Your task to perform on an android device: Open display settings Image 0: 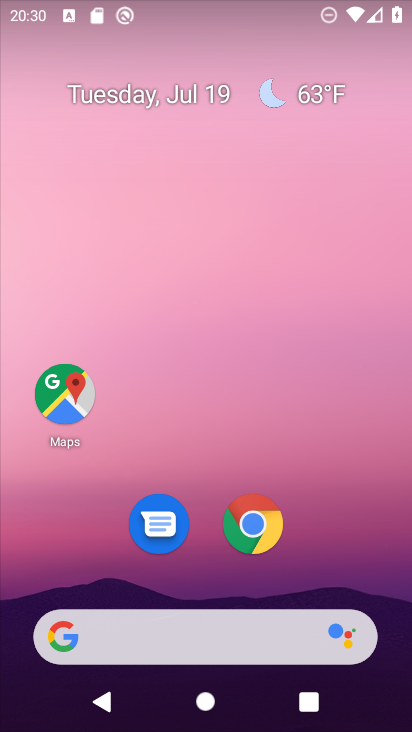
Step 0: drag from (320, 529) to (299, 30)
Your task to perform on an android device: Open display settings Image 1: 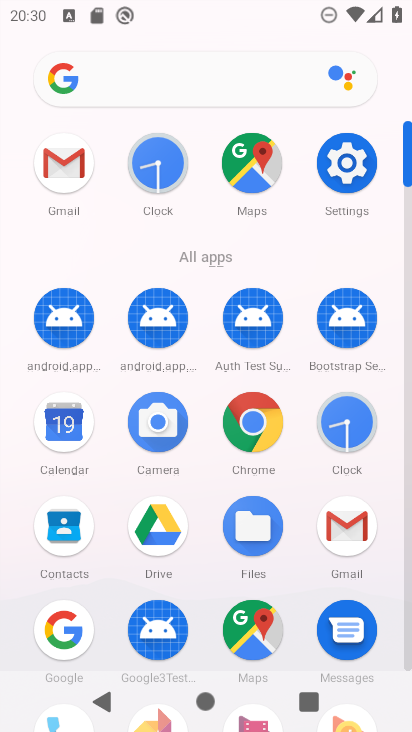
Step 1: click (343, 168)
Your task to perform on an android device: Open display settings Image 2: 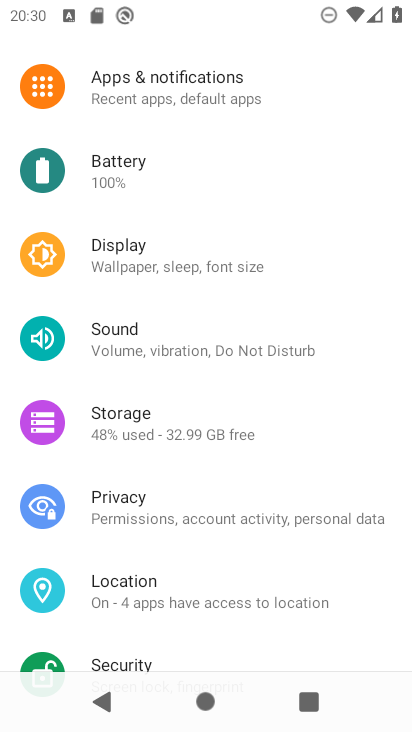
Step 2: click (230, 253)
Your task to perform on an android device: Open display settings Image 3: 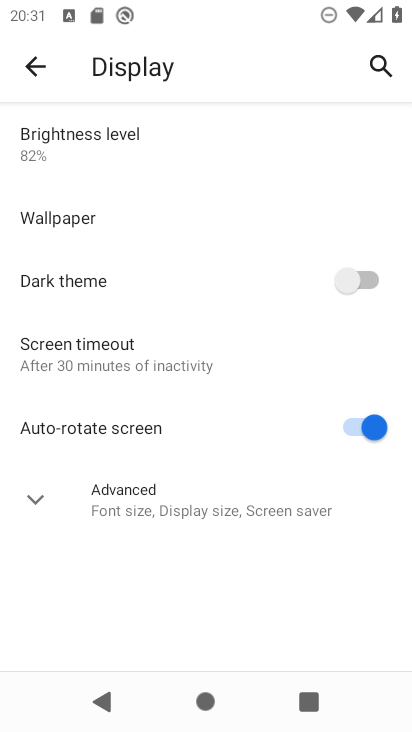
Step 3: click (39, 502)
Your task to perform on an android device: Open display settings Image 4: 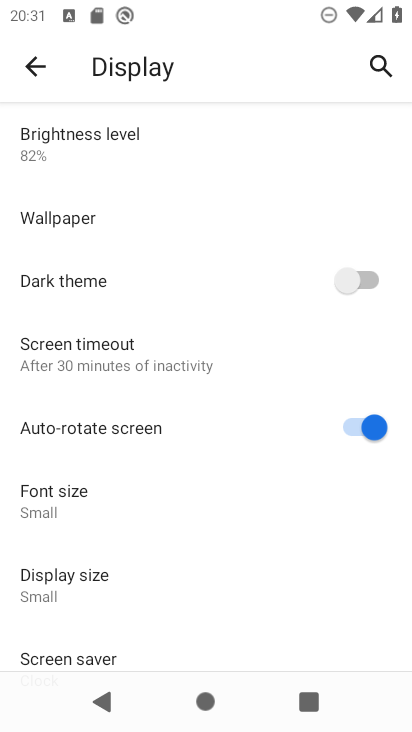
Step 4: task complete